Your task to perform on an android device: Turn on the flashlight Image 0: 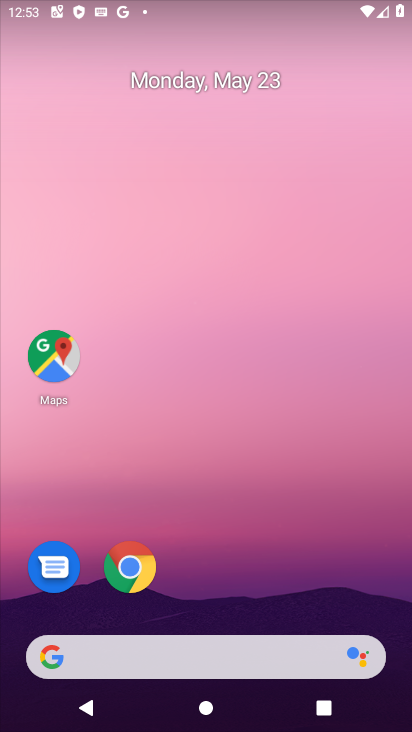
Step 0: drag from (233, 616) to (263, 196)
Your task to perform on an android device: Turn on the flashlight Image 1: 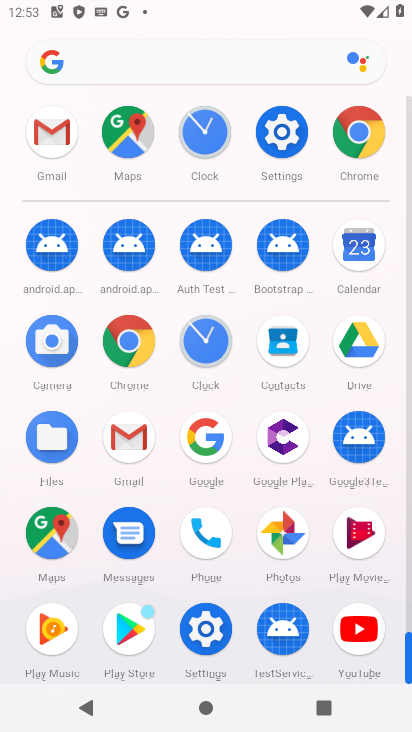
Step 1: click (277, 149)
Your task to perform on an android device: Turn on the flashlight Image 2: 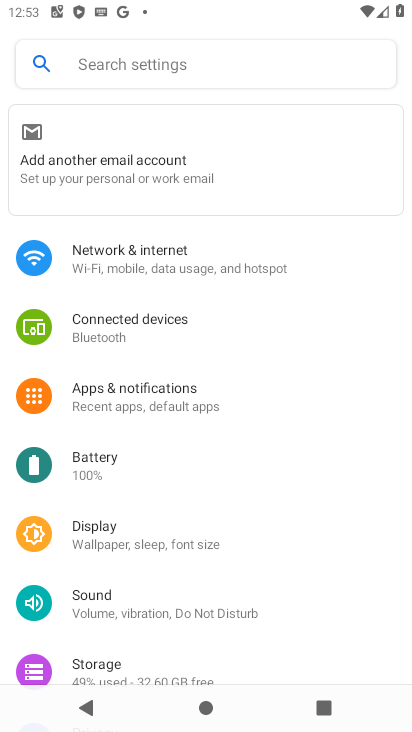
Step 2: drag from (244, 8) to (257, 720)
Your task to perform on an android device: Turn on the flashlight Image 3: 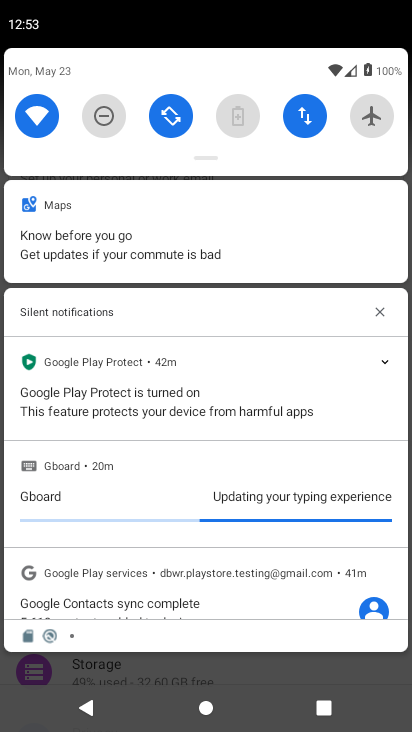
Step 3: drag from (212, 137) to (201, 531)
Your task to perform on an android device: Turn on the flashlight Image 4: 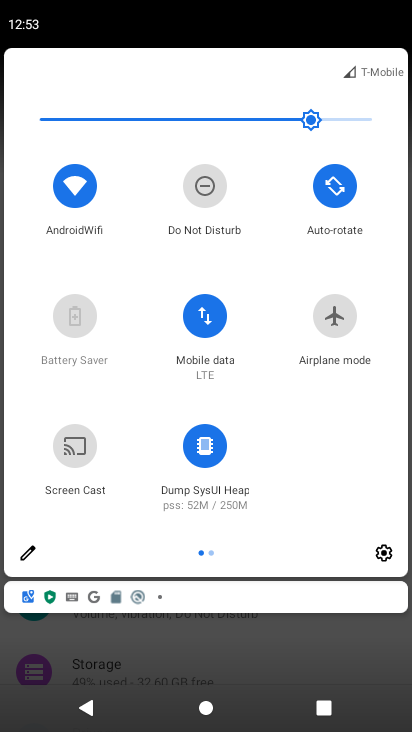
Step 4: click (29, 553)
Your task to perform on an android device: Turn on the flashlight Image 5: 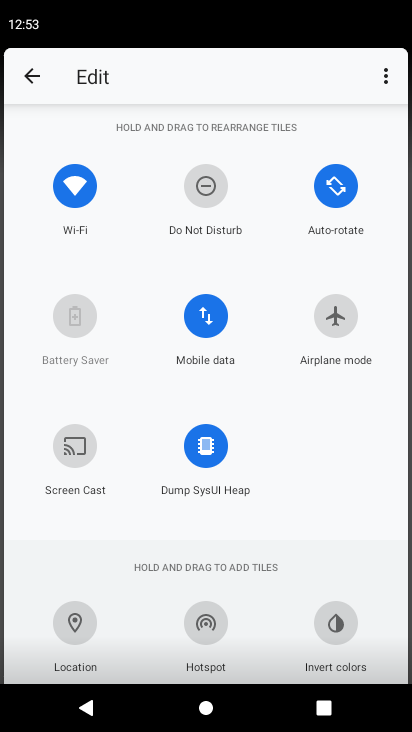
Step 5: task complete